Your task to perform on an android device: Check the news Image 0: 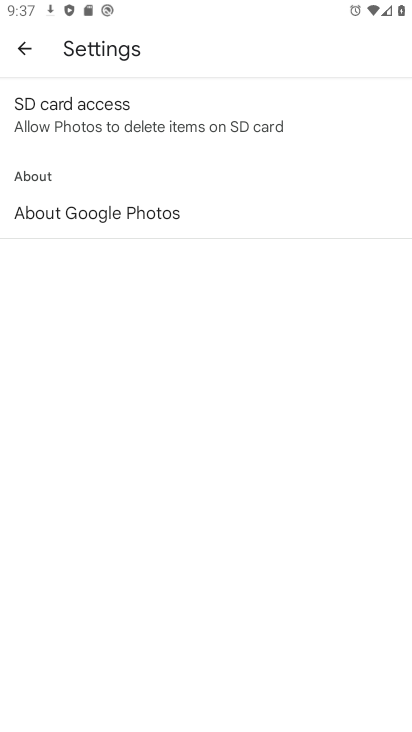
Step 0: press home button
Your task to perform on an android device: Check the news Image 1: 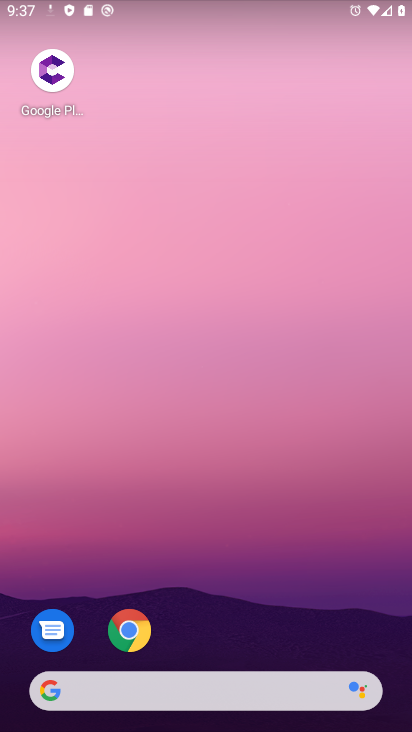
Step 1: click (136, 635)
Your task to perform on an android device: Check the news Image 2: 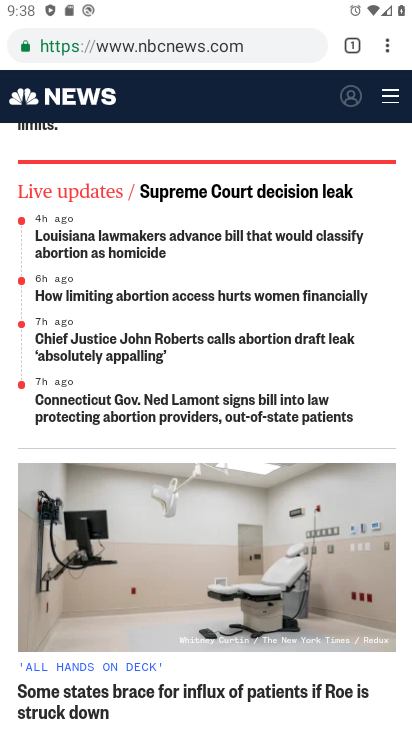
Step 2: press back button
Your task to perform on an android device: Check the news Image 3: 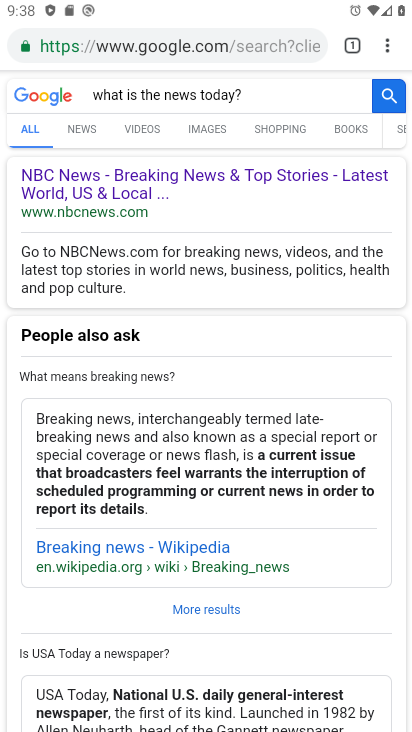
Step 3: drag from (176, 661) to (206, 181)
Your task to perform on an android device: Check the news Image 4: 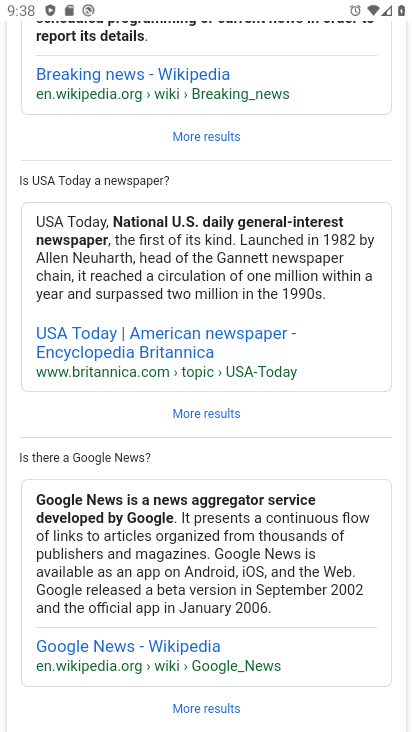
Step 4: drag from (169, 635) to (224, 213)
Your task to perform on an android device: Check the news Image 5: 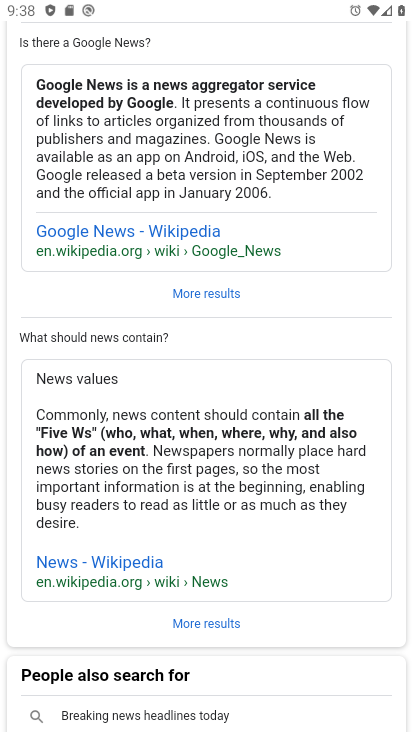
Step 5: drag from (183, 683) to (221, 157)
Your task to perform on an android device: Check the news Image 6: 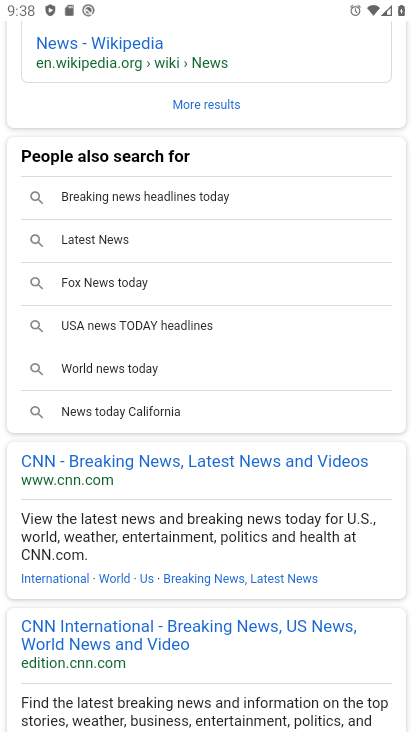
Step 6: click (224, 461)
Your task to perform on an android device: Check the news Image 7: 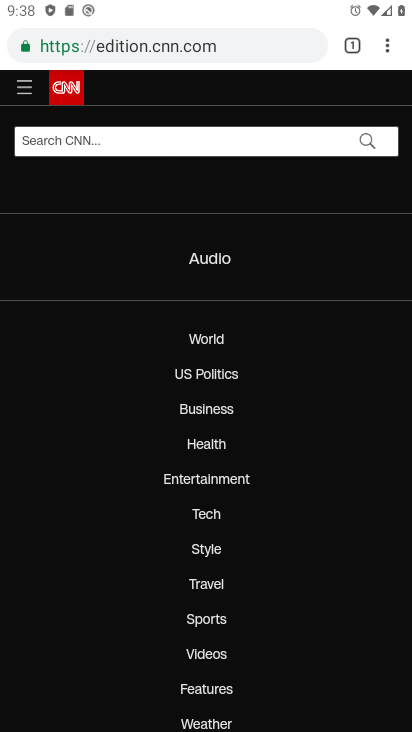
Step 7: task complete